Your task to perform on an android device: toggle translation in the chrome app Image 0: 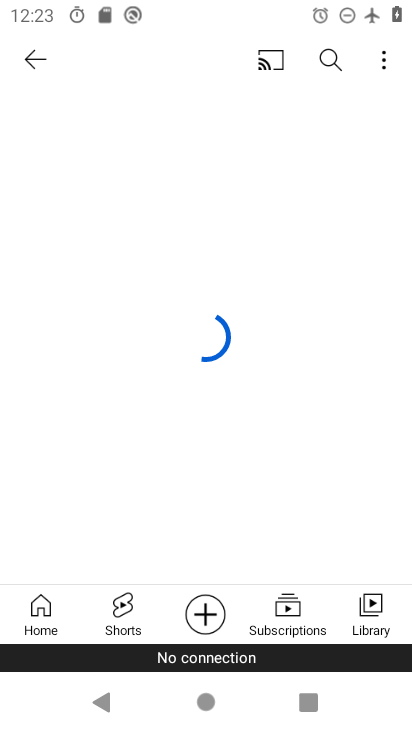
Step 0: press home button
Your task to perform on an android device: toggle translation in the chrome app Image 1: 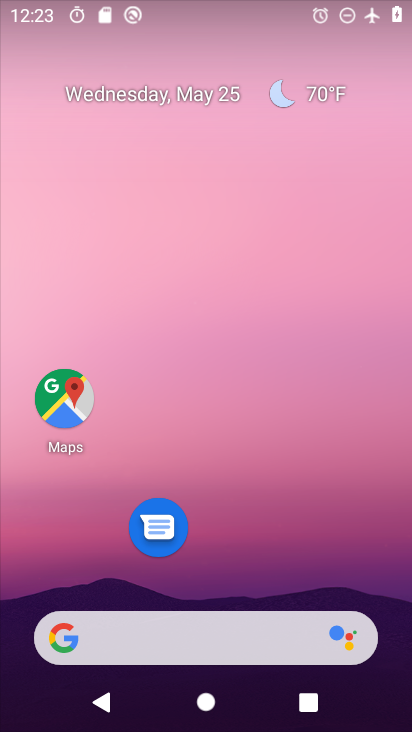
Step 1: drag from (238, 536) to (262, 81)
Your task to perform on an android device: toggle translation in the chrome app Image 2: 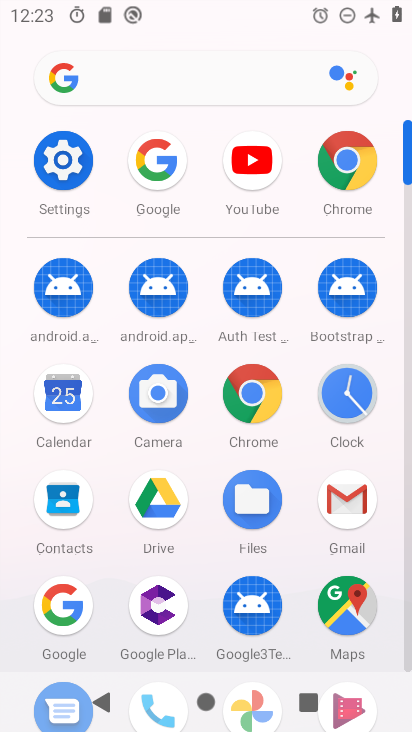
Step 2: click (258, 401)
Your task to perform on an android device: toggle translation in the chrome app Image 3: 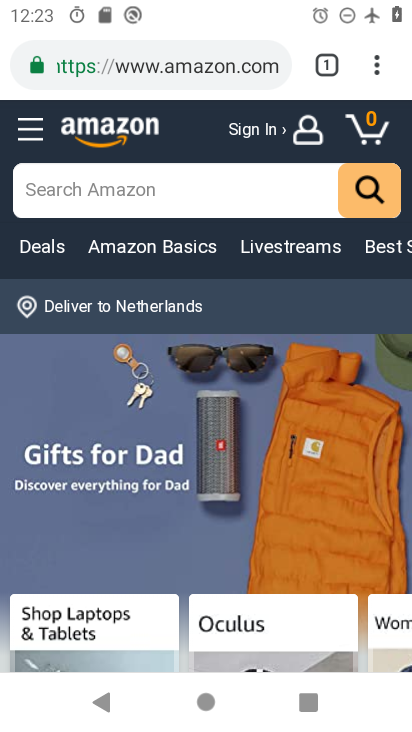
Step 3: click (368, 61)
Your task to perform on an android device: toggle translation in the chrome app Image 4: 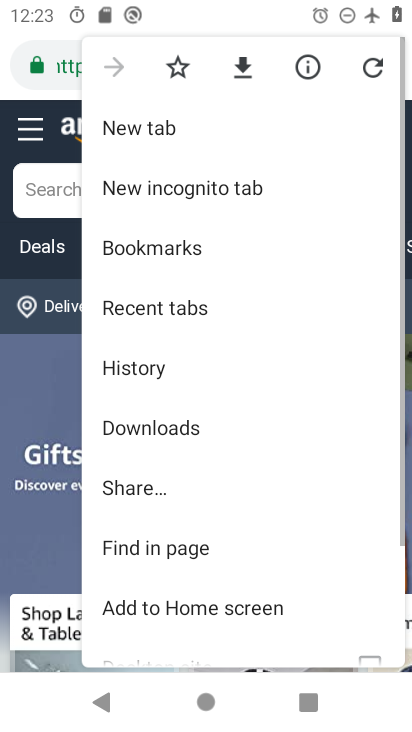
Step 4: drag from (240, 631) to (265, 144)
Your task to perform on an android device: toggle translation in the chrome app Image 5: 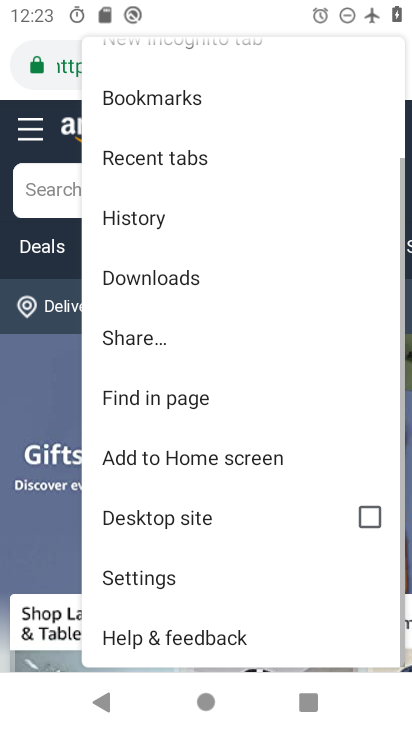
Step 5: click (172, 568)
Your task to perform on an android device: toggle translation in the chrome app Image 6: 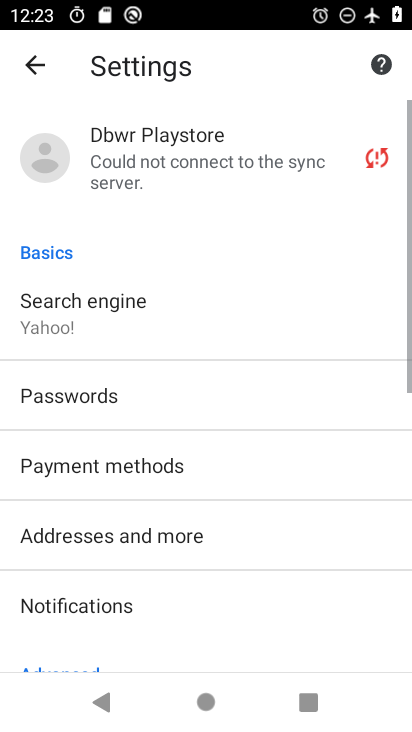
Step 6: drag from (289, 587) to (348, 108)
Your task to perform on an android device: toggle translation in the chrome app Image 7: 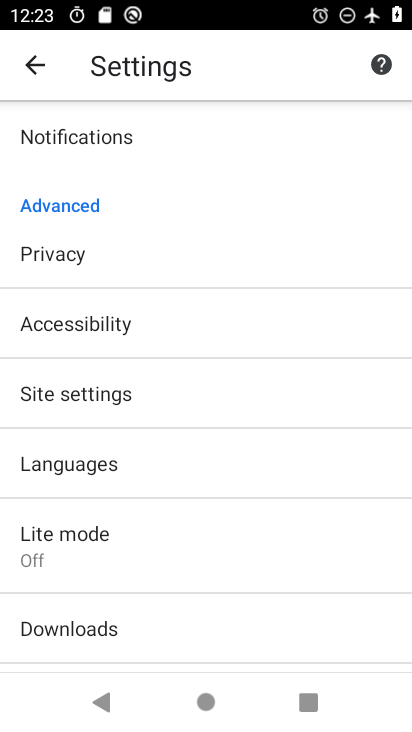
Step 7: drag from (133, 554) to (133, 361)
Your task to perform on an android device: toggle translation in the chrome app Image 8: 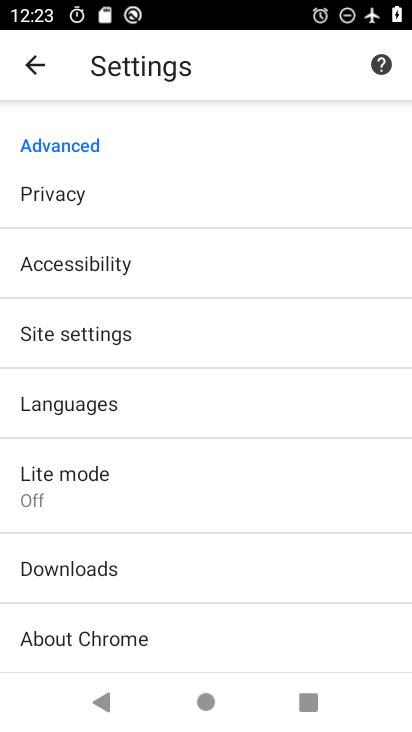
Step 8: click (138, 410)
Your task to perform on an android device: toggle translation in the chrome app Image 9: 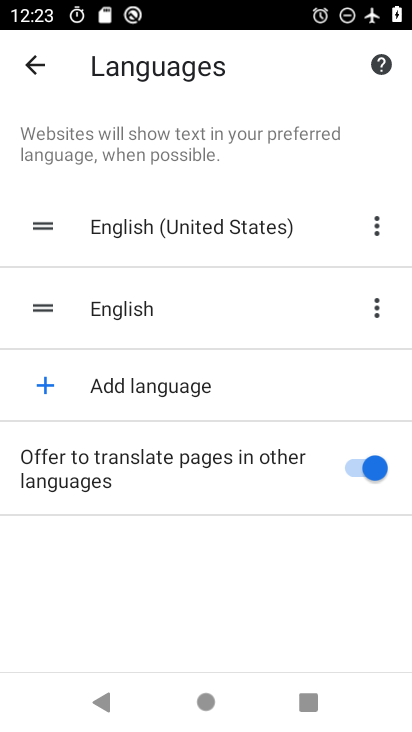
Step 9: click (360, 465)
Your task to perform on an android device: toggle translation in the chrome app Image 10: 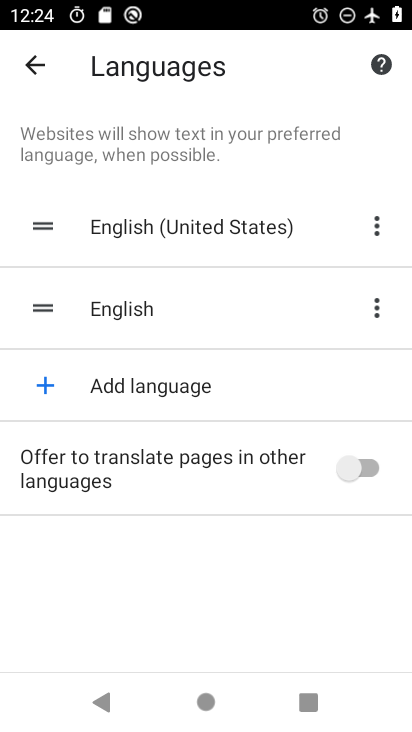
Step 10: task complete